Your task to perform on an android device: open a bookmark in the chrome app Image 0: 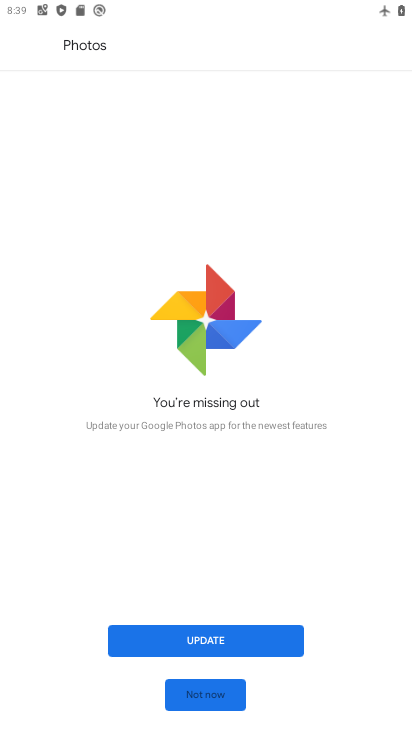
Step 0: press home button
Your task to perform on an android device: open a bookmark in the chrome app Image 1: 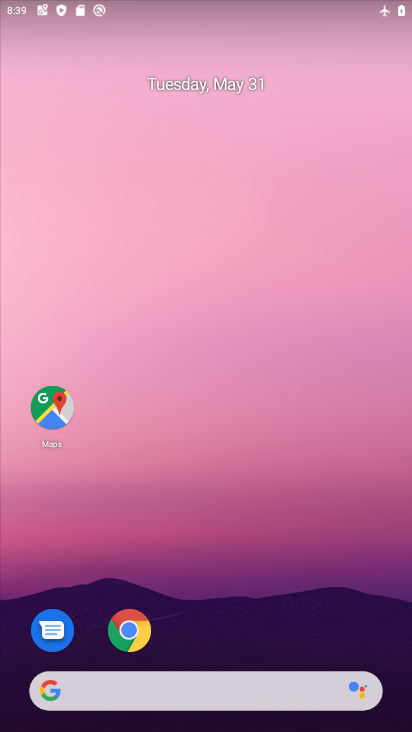
Step 1: click (132, 627)
Your task to perform on an android device: open a bookmark in the chrome app Image 2: 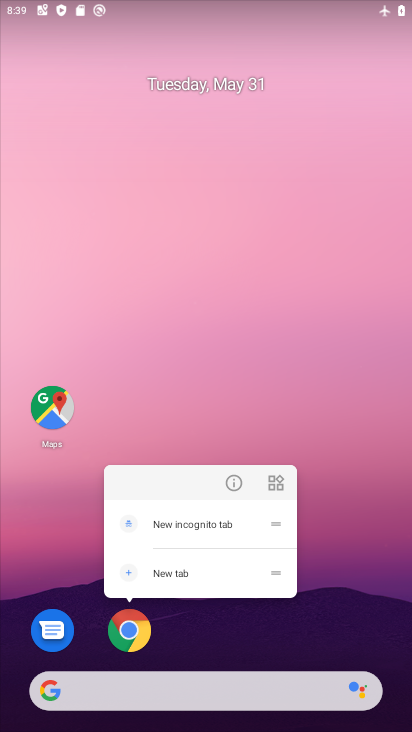
Step 2: click (132, 627)
Your task to perform on an android device: open a bookmark in the chrome app Image 3: 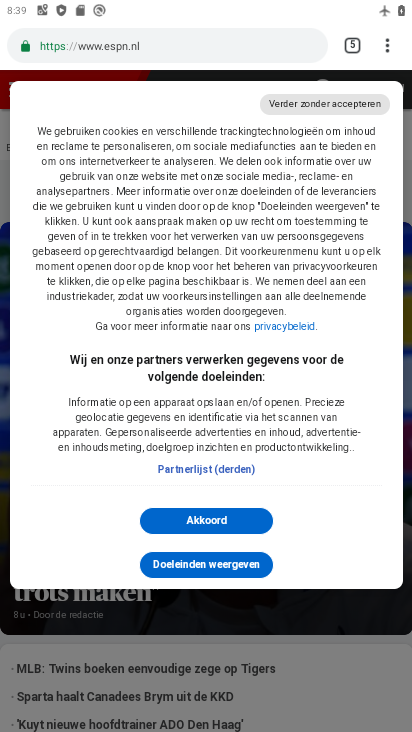
Step 3: click (388, 43)
Your task to perform on an android device: open a bookmark in the chrome app Image 4: 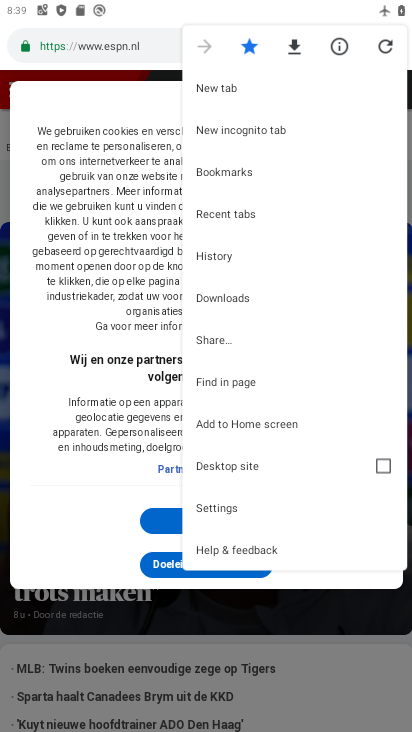
Step 4: click (247, 167)
Your task to perform on an android device: open a bookmark in the chrome app Image 5: 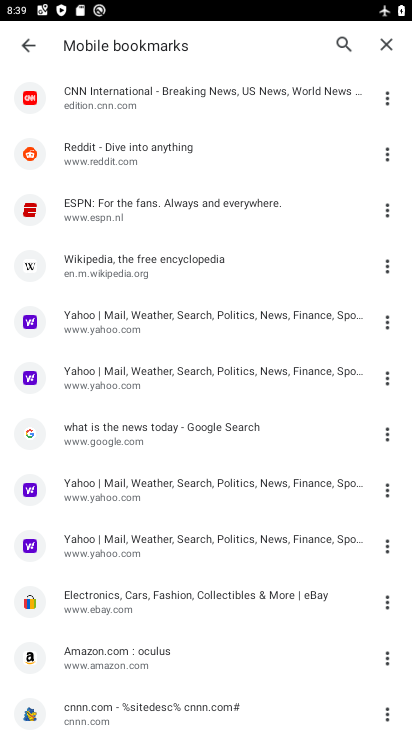
Step 5: task complete